Your task to perform on an android device: Open Android settings Image 0: 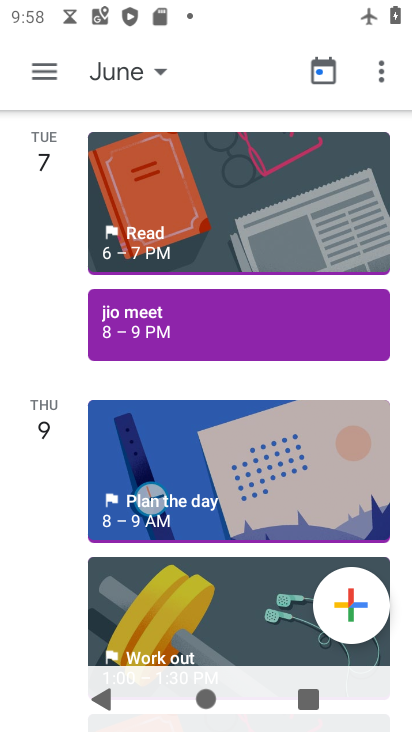
Step 0: press home button
Your task to perform on an android device: Open Android settings Image 1: 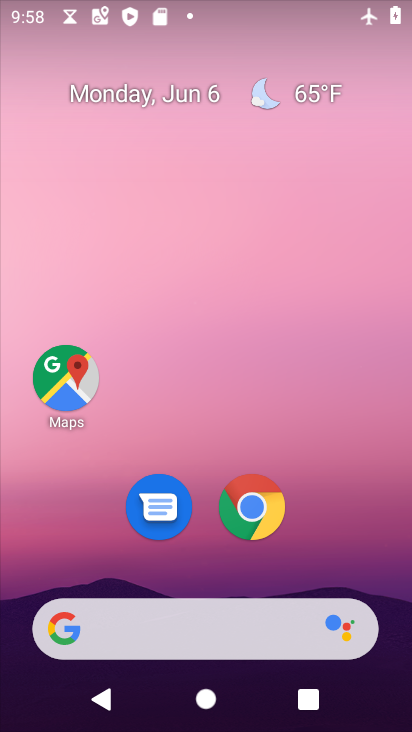
Step 1: drag from (277, 540) to (274, 195)
Your task to perform on an android device: Open Android settings Image 2: 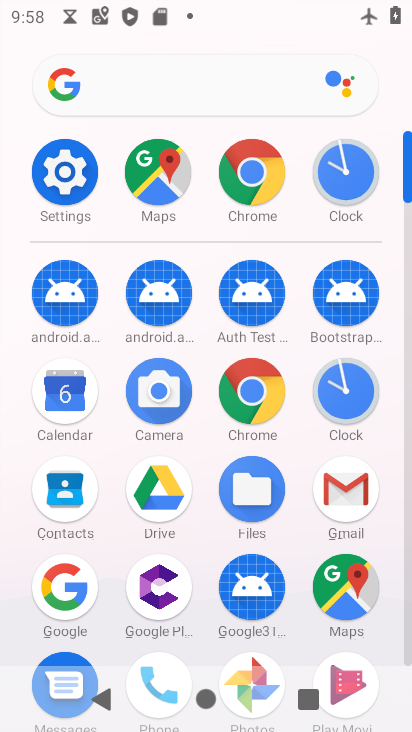
Step 2: click (55, 155)
Your task to perform on an android device: Open Android settings Image 3: 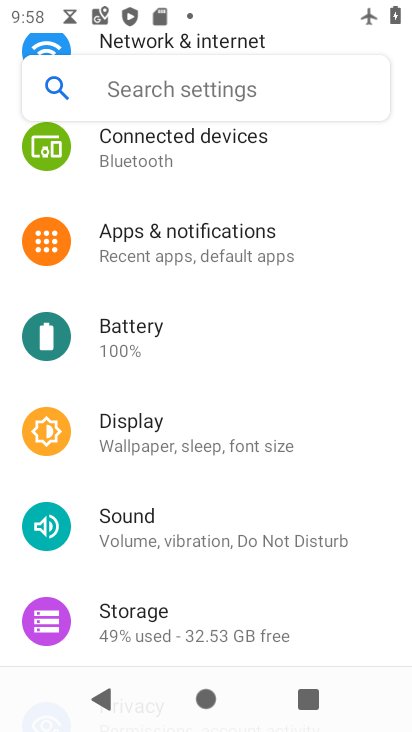
Step 3: task complete